Your task to perform on an android device: Go to display settings Image 0: 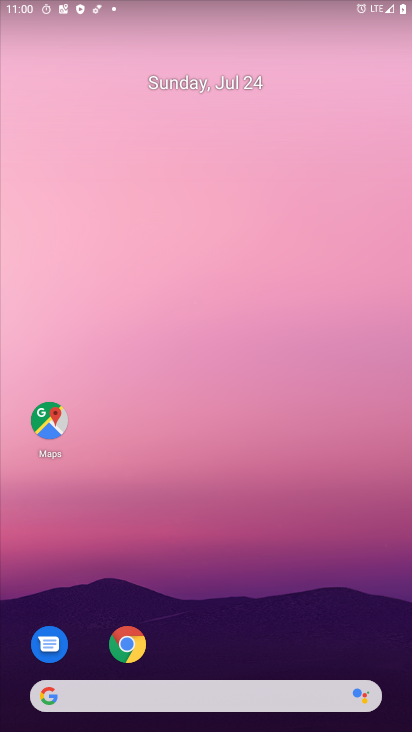
Step 0: drag from (254, 541) to (257, 306)
Your task to perform on an android device: Go to display settings Image 1: 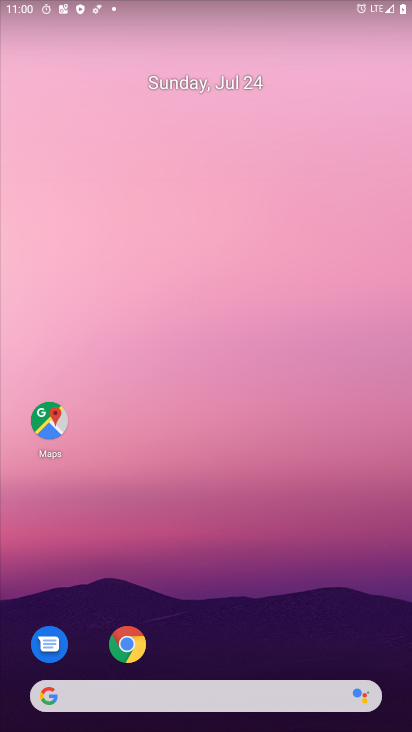
Step 1: drag from (247, 676) to (247, 164)
Your task to perform on an android device: Go to display settings Image 2: 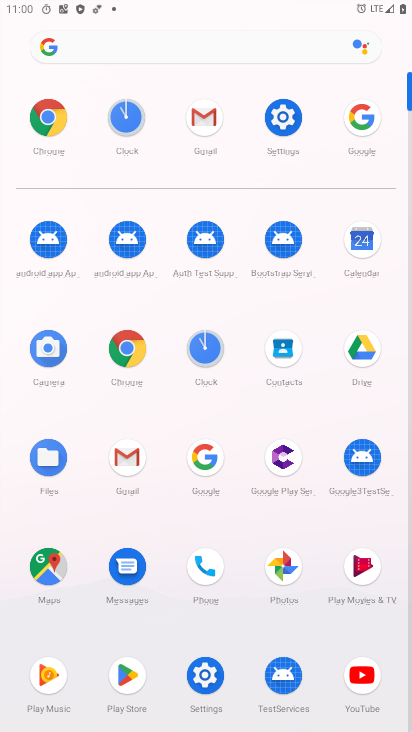
Step 2: click (286, 111)
Your task to perform on an android device: Go to display settings Image 3: 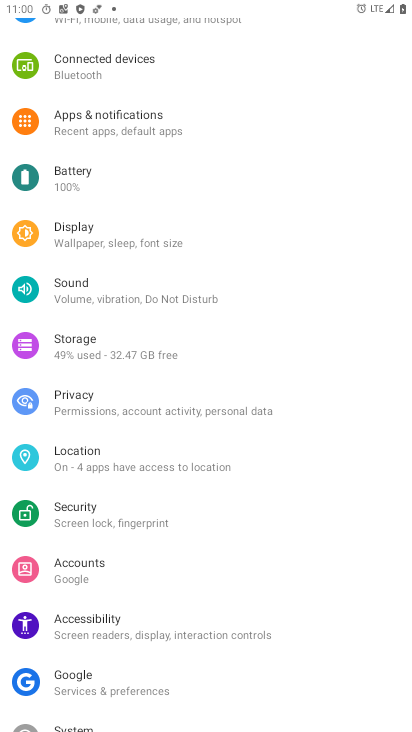
Step 3: click (122, 229)
Your task to perform on an android device: Go to display settings Image 4: 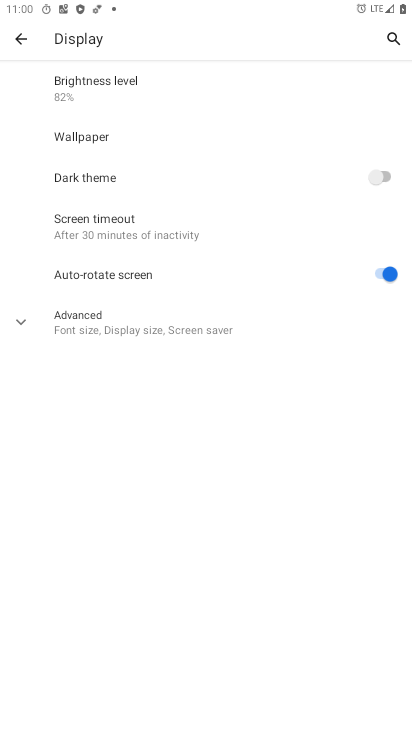
Step 4: click (128, 317)
Your task to perform on an android device: Go to display settings Image 5: 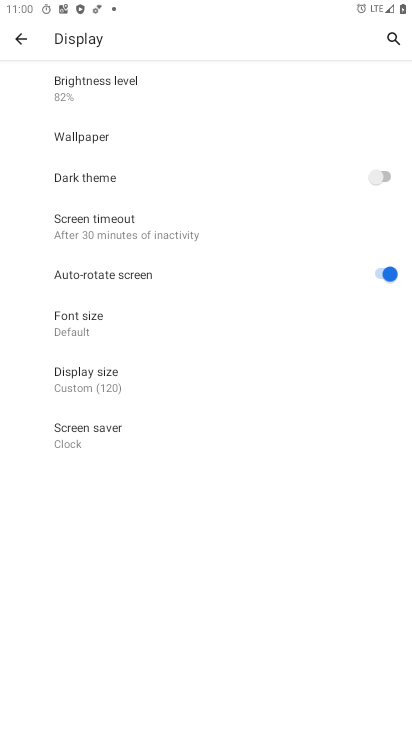
Step 5: task complete